Your task to perform on an android device: Open my contact list Image 0: 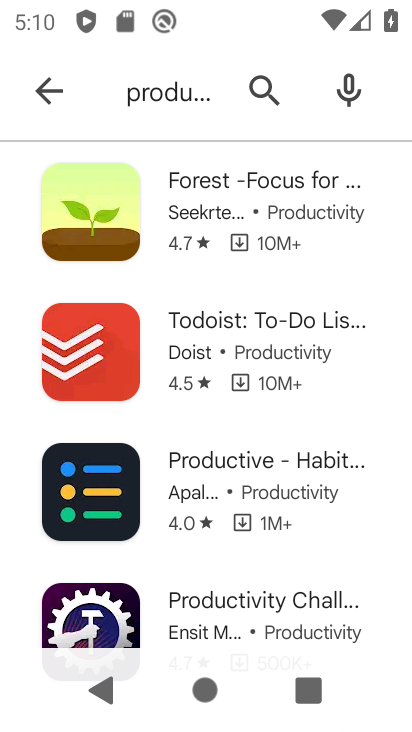
Step 0: press home button
Your task to perform on an android device: Open my contact list Image 1: 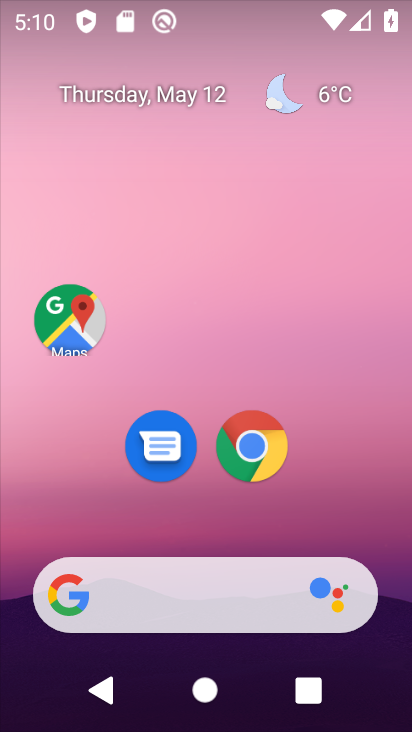
Step 1: drag from (292, 511) to (272, 97)
Your task to perform on an android device: Open my contact list Image 2: 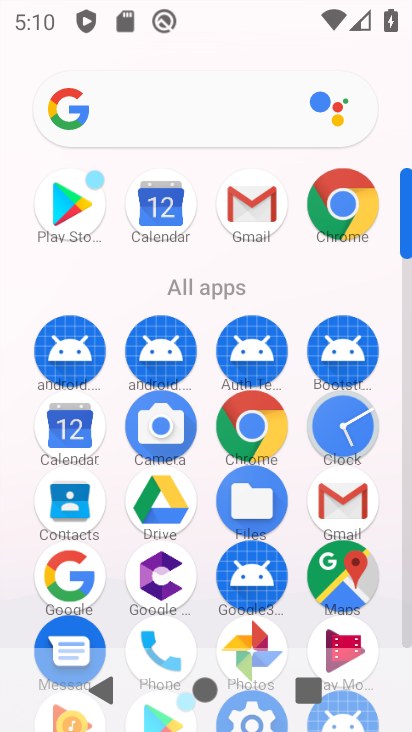
Step 2: click (71, 501)
Your task to perform on an android device: Open my contact list Image 3: 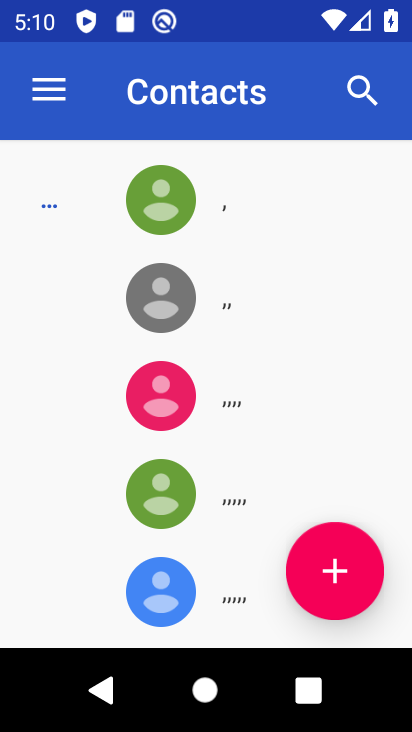
Step 3: task complete